Your task to perform on an android device: Go to ESPN.com Image 0: 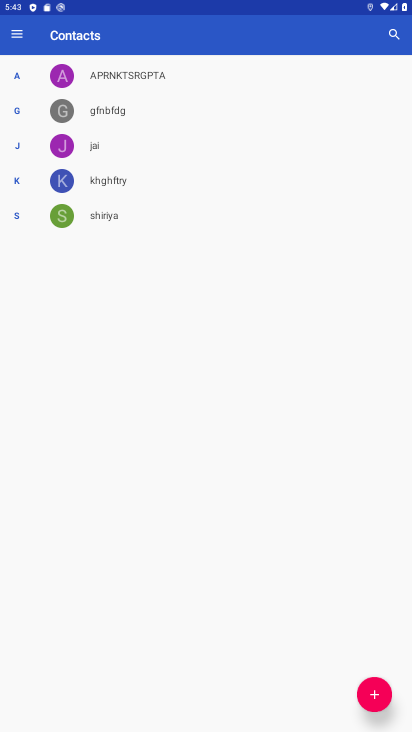
Step 0: press home button
Your task to perform on an android device: Go to ESPN.com Image 1: 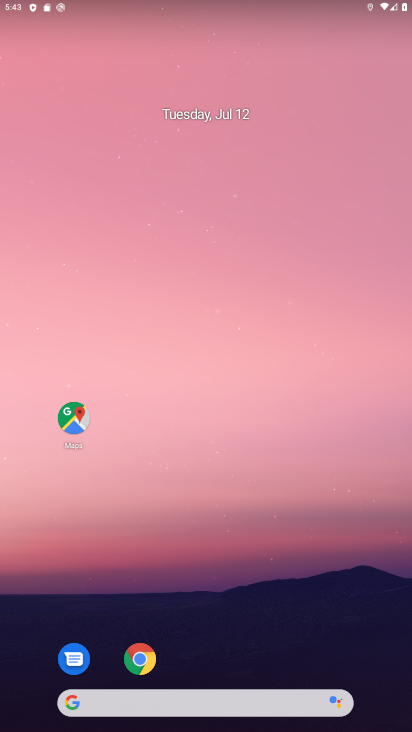
Step 1: click (142, 668)
Your task to perform on an android device: Go to ESPN.com Image 2: 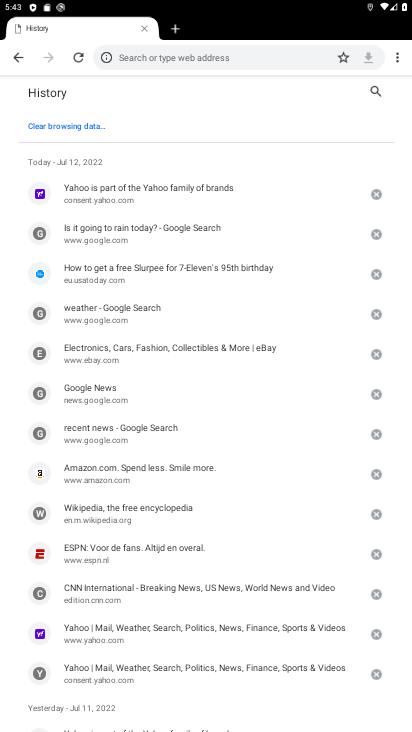
Step 2: click (180, 56)
Your task to perform on an android device: Go to ESPN.com Image 3: 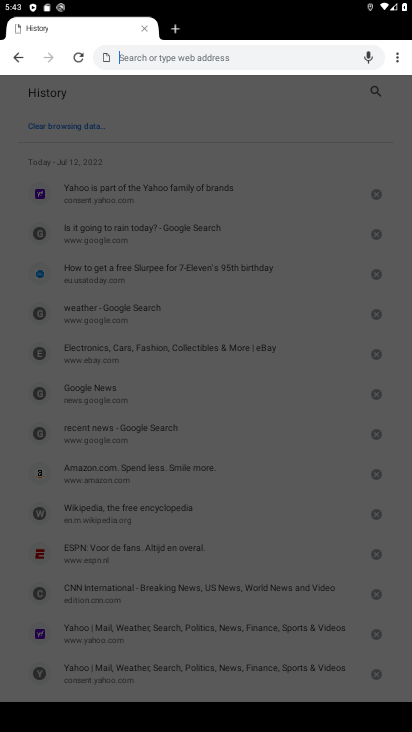
Step 3: type "ESPN.com"
Your task to perform on an android device: Go to ESPN.com Image 4: 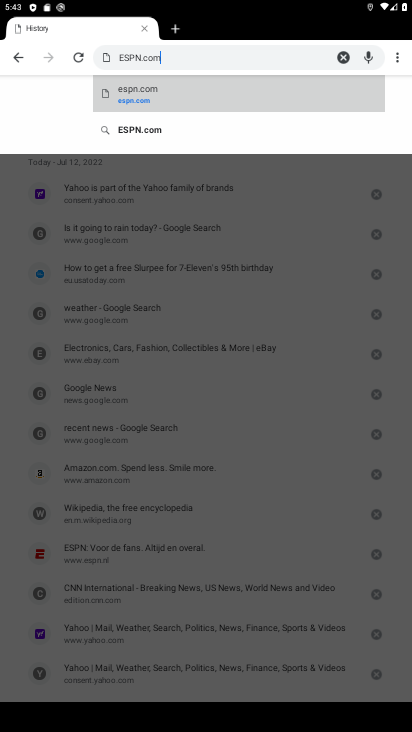
Step 4: click (152, 134)
Your task to perform on an android device: Go to ESPN.com Image 5: 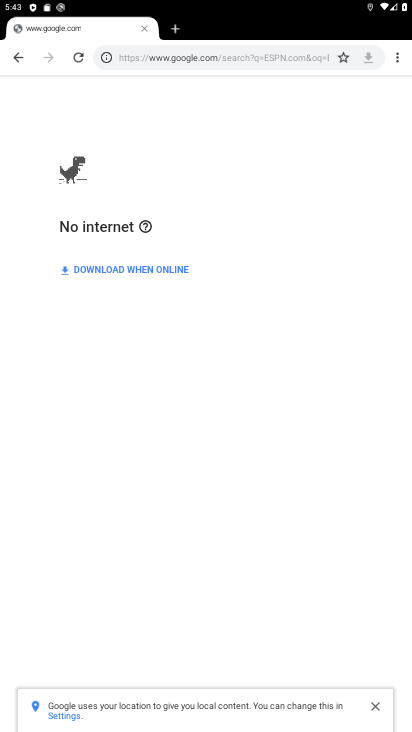
Step 5: task complete